Your task to perform on an android device: change notifications settings Image 0: 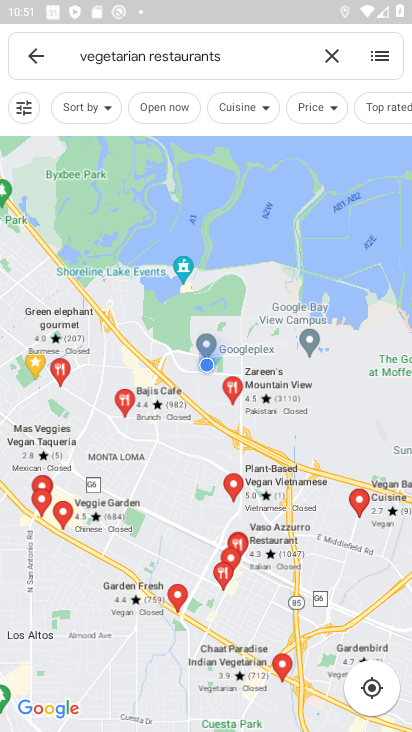
Step 0: click (137, 203)
Your task to perform on an android device: change notifications settings Image 1: 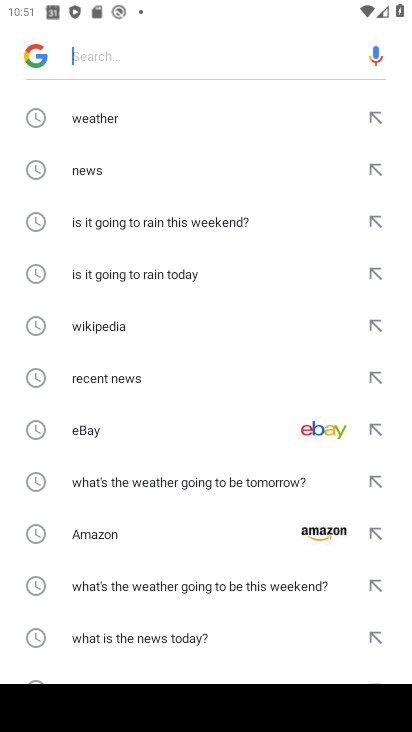
Step 1: press back button
Your task to perform on an android device: change notifications settings Image 2: 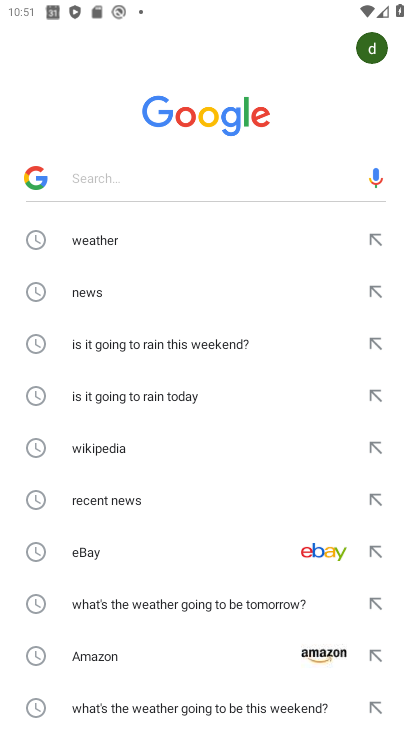
Step 2: press home button
Your task to perform on an android device: change notifications settings Image 3: 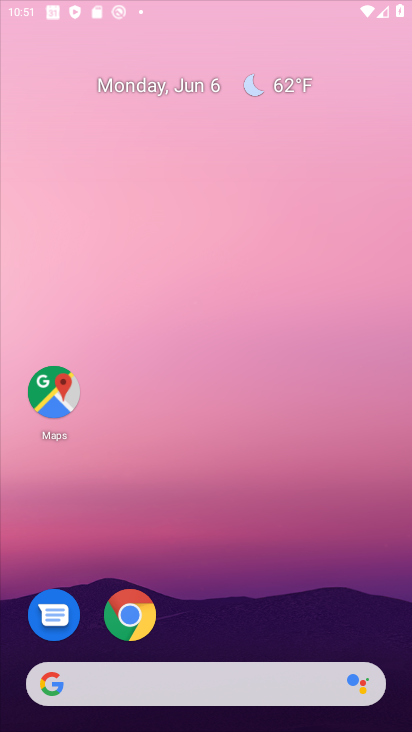
Step 3: press back button
Your task to perform on an android device: change notifications settings Image 4: 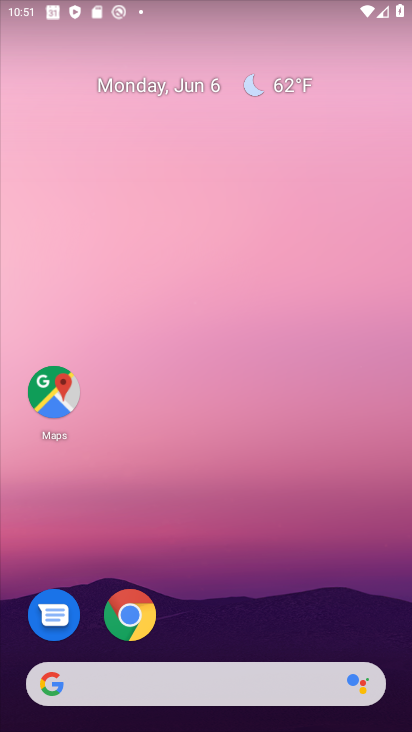
Step 4: drag from (233, 717) to (153, 138)
Your task to perform on an android device: change notifications settings Image 5: 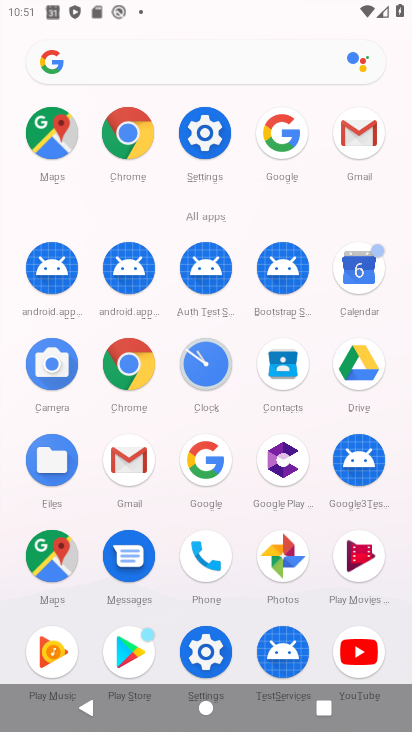
Step 5: click (197, 144)
Your task to perform on an android device: change notifications settings Image 6: 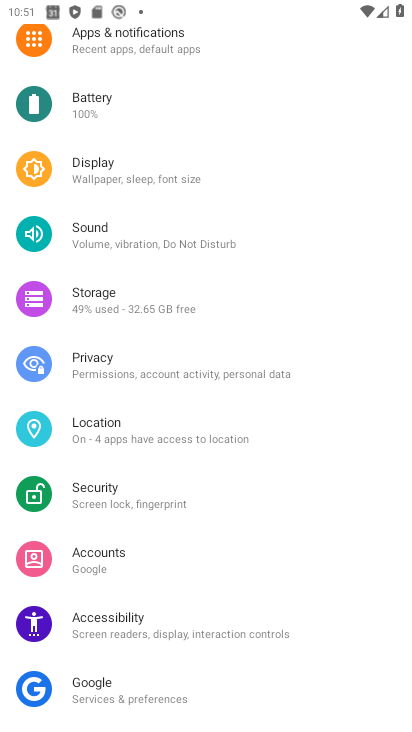
Step 6: click (157, 43)
Your task to perform on an android device: change notifications settings Image 7: 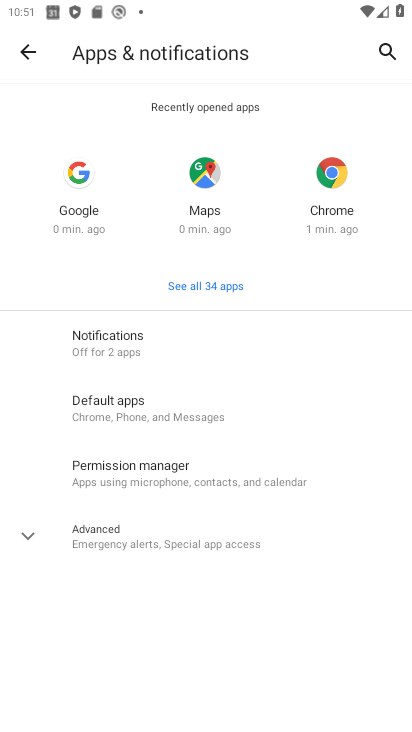
Step 7: click (97, 342)
Your task to perform on an android device: change notifications settings Image 8: 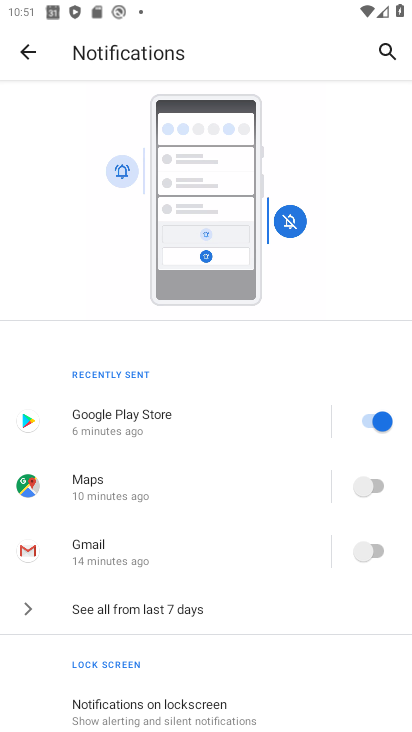
Step 8: click (373, 419)
Your task to perform on an android device: change notifications settings Image 9: 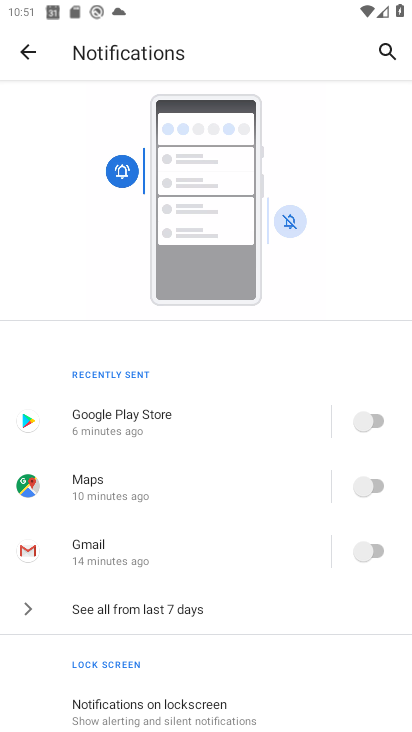
Step 9: click (370, 485)
Your task to perform on an android device: change notifications settings Image 10: 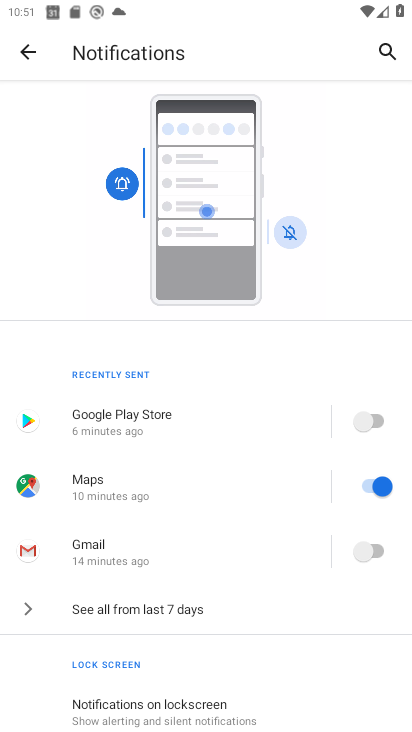
Step 10: click (364, 549)
Your task to perform on an android device: change notifications settings Image 11: 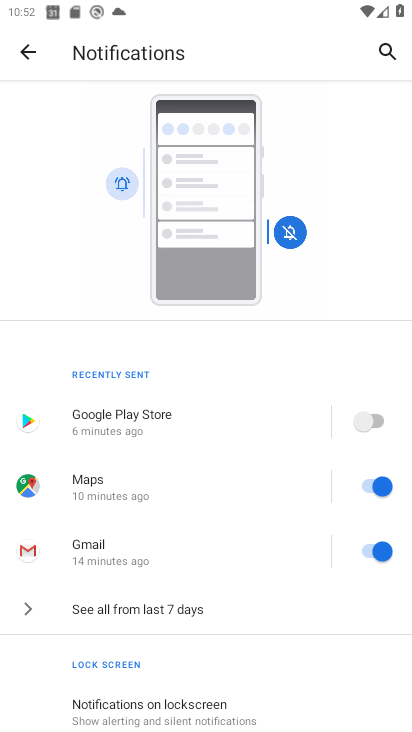
Step 11: task complete